Your task to perform on an android device: Search for a custom-made wallet on Etsy Image 0: 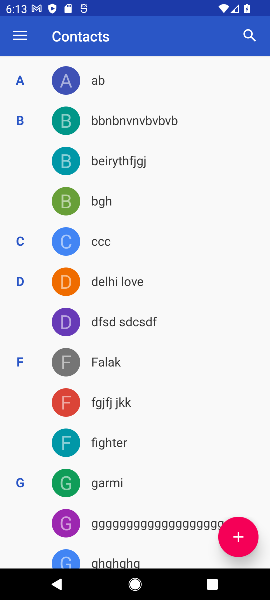
Step 0: press home button
Your task to perform on an android device: Search for a custom-made wallet on Etsy Image 1: 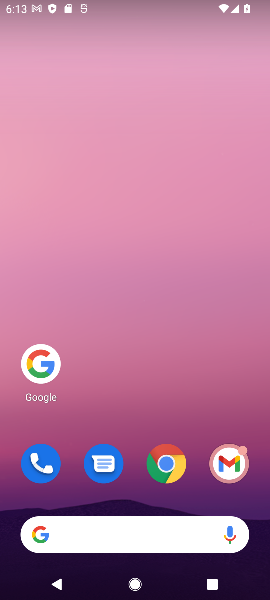
Step 1: click (34, 358)
Your task to perform on an android device: Search for a custom-made wallet on Etsy Image 2: 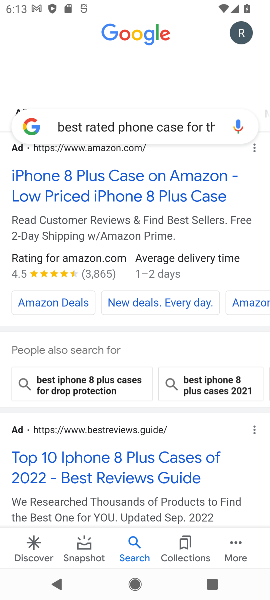
Step 2: click (140, 122)
Your task to perform on an android device: Search for a custom-made wallet on Etsy Image 3: 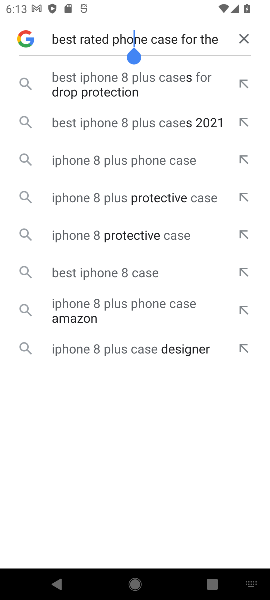
Step 3: click (242, 33)
Your task to perform on an android device: Search for a custom-made wallet on Etsy Image 4: 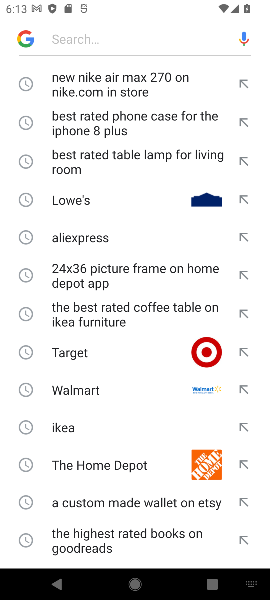
Step 4: click (93, 39)
Your task to perform on an android device: Search for a custom-made wallet on Etsy Image 5: 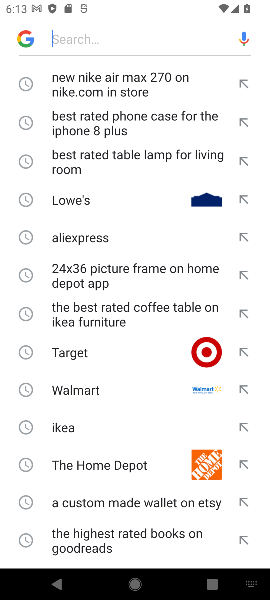
Step 5: type "a custom-made wallet on Etsy "
Your task to perform on an android device: Search for a custom-made wallet on Etsy Image 6: 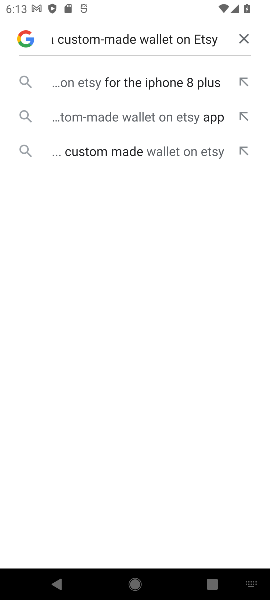
Step 6: click (106, 114)
Your task to perform on an android device: Search for a custom-made wallet on Etsy Image 7: 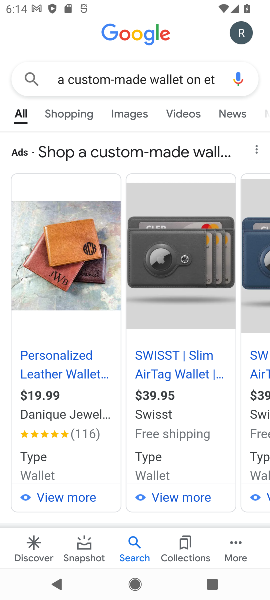
Step 7: task complete